Your task to perform on an android device: remove spam from my inbox in the gmail app Image 0: 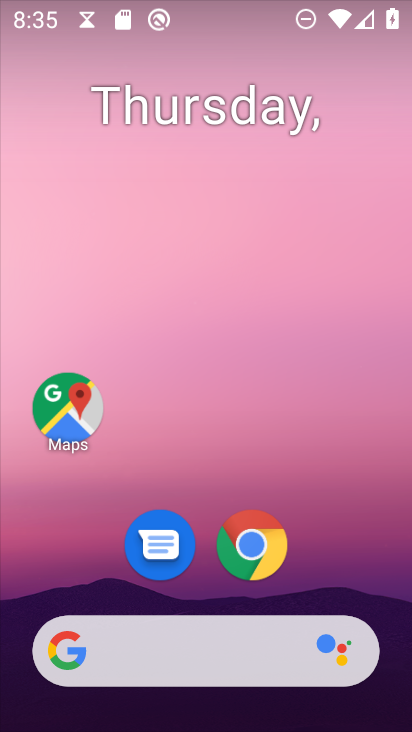
Step 0: drag from (339, 573) to (318, 86)
Your task to perform on an android device: remove spam from my inbox in the gmail app Image 1: 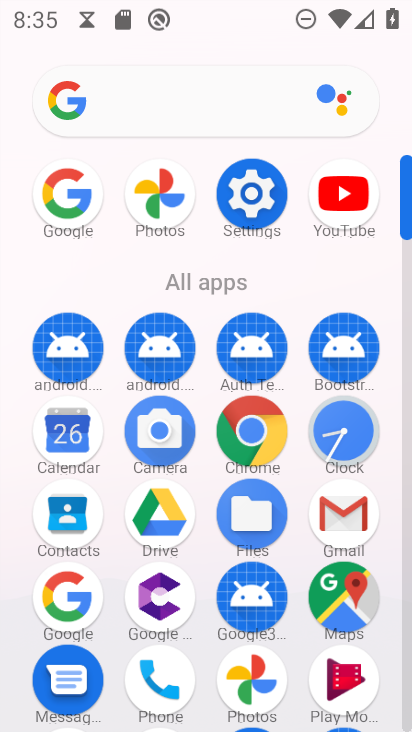
Step 1: click (345, 509)
Your task to perform on an android device: remove spam from my inbox in the gmail app Image 2: 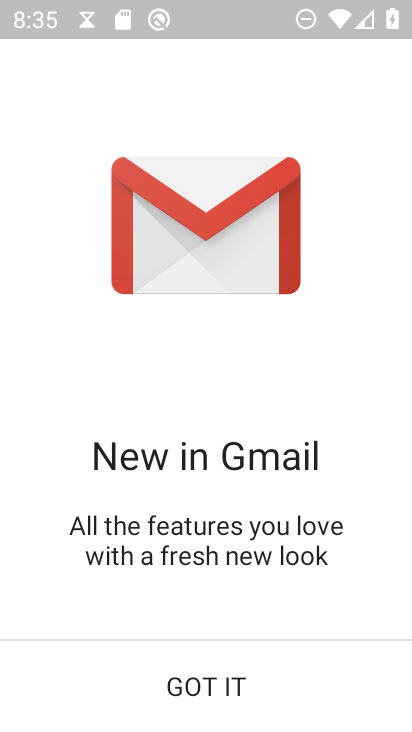
Step 2: click (213, 689)
Your task to perform on an android device: remove spam from my inbox in the gmail app Image 3: 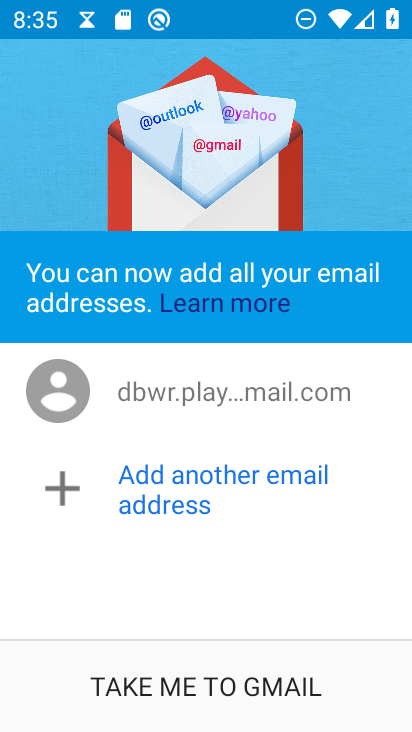
Step 3: click (213, 689)
Your task to perform on an android device: remove spam from my inbox in the gmail app Image 4: 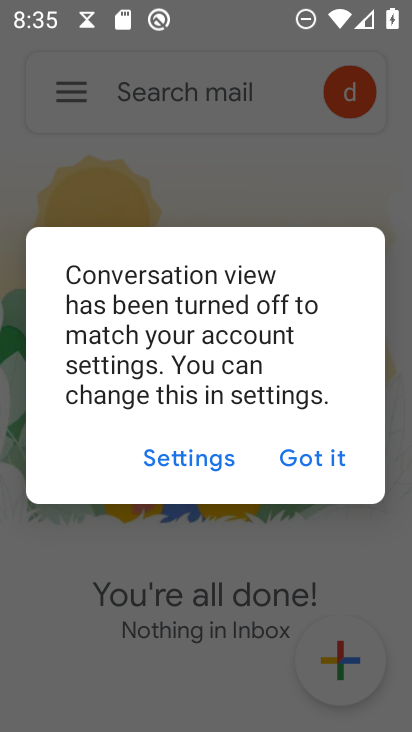
Step 4: click (323, 457)
Your task to perform on an android device: remove spam from my inbox in the gmail app Image 5: 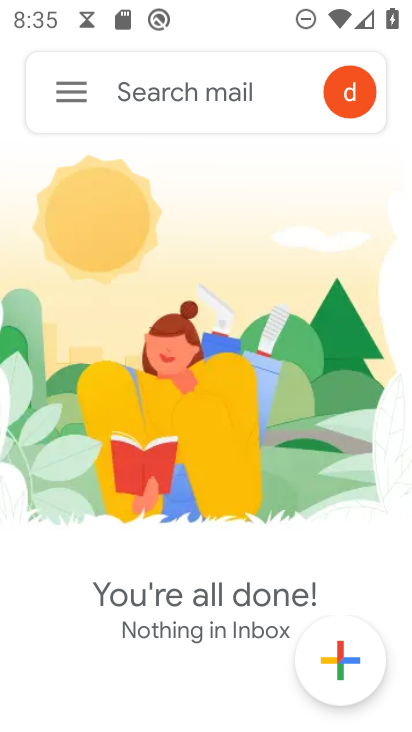
Step 5: click (66, 94)
Your task to perform on an android device: remove spam from my inbox in the gmail app Image 6: 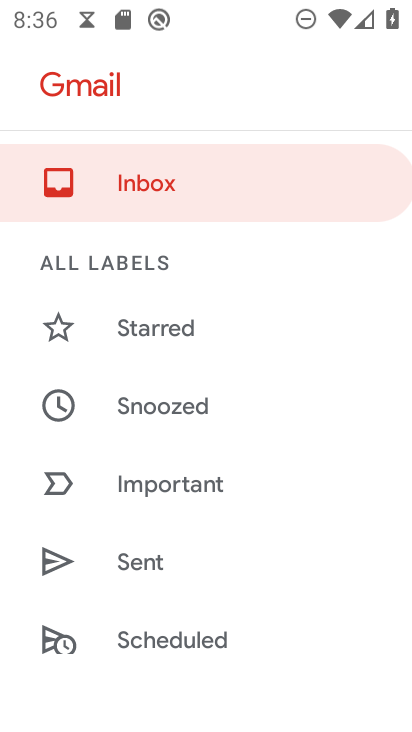
Step 6: drag from (180, 492) to (239, 384)
Your task to perform on an android device: remove spam from my inbox in the gmail app Image 7: 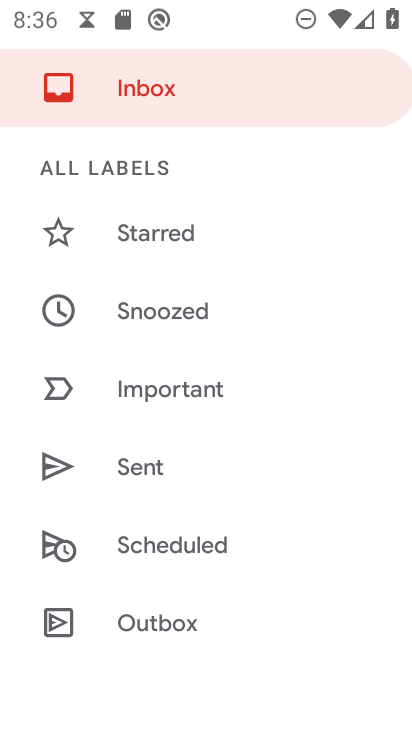
Step 7: drag from (166, 553) to (247, 446)
Your task to perform on an android device: remove spam from my inbox in the gmail app Image 8: 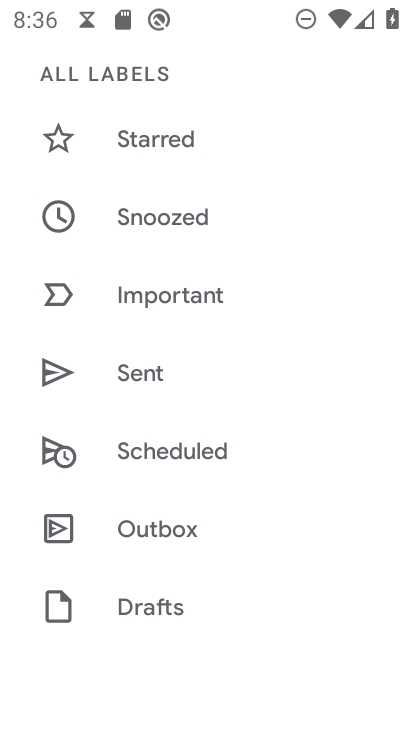
Step 8: drag from (155, 555) to (192, 457)
Your task to perform on an android device: remove spam from my inbox in the gmail app Image 9: 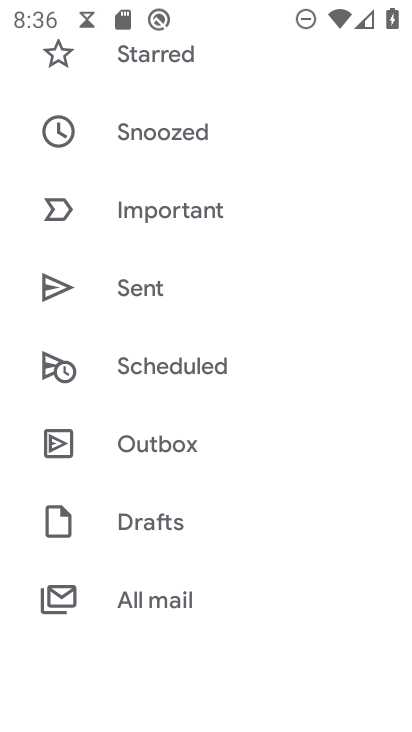
Step 9: drag from (139, 551) to (222, 431)
Your task to perform on an android device: remove spam from my inbox in the gmail app Image 10: 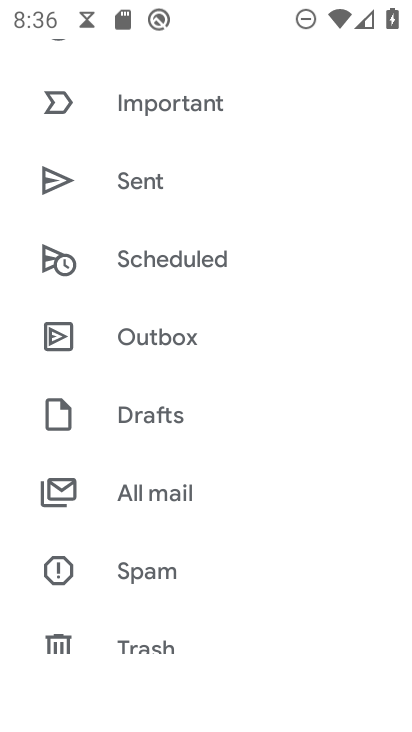
Step 10: click (143, 572)
Your task to perform on an android device: remove spam from my inbox in the gmail app Image 11: 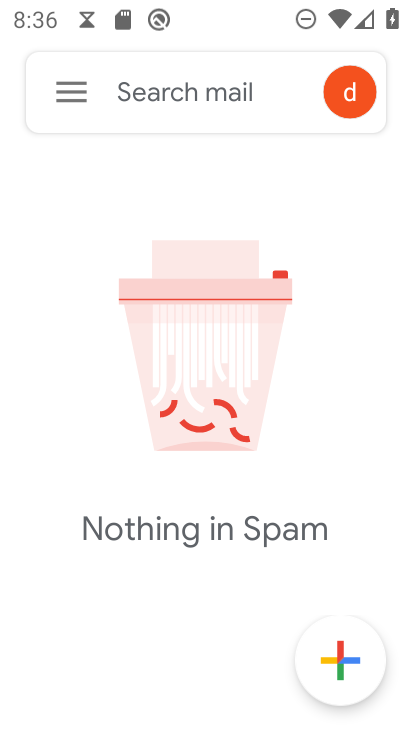
Step 11: task complete